Your task to perform on an android device: choose inbox layout in the gmail app Image 0: 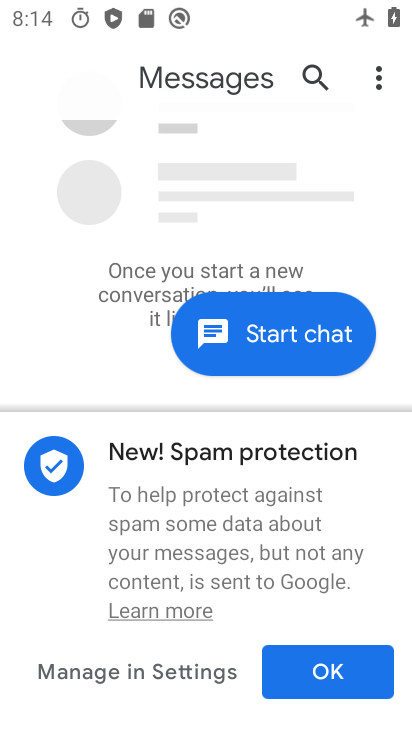
Step 0: press back button
Your task to perform on an android device: choose inbox layout in the gmail app Image 1: 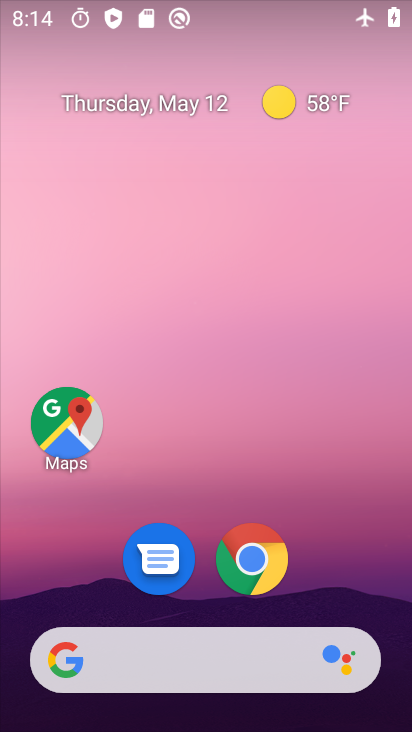
Step 1: drag from (343, 570) to (244, 102)
Your task to perform on an android device: choose inbox layout in the gmail app Image 2: 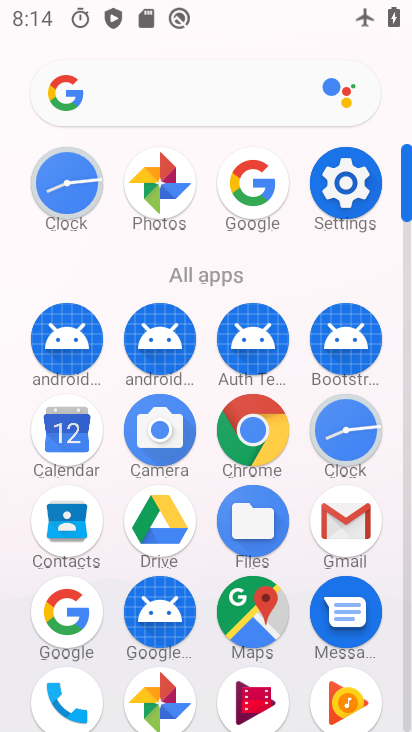
Step 2: click (345, 520)
Your task to perform on an android device: choose inbox layout in the gmail app Image 3: 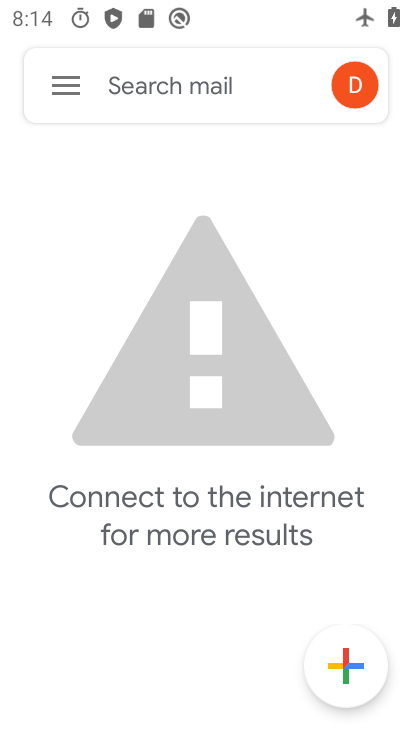
Step 3: click (70, 84)
Your task to perform on an android device: choose inbox layout in the gmail app Image 4: 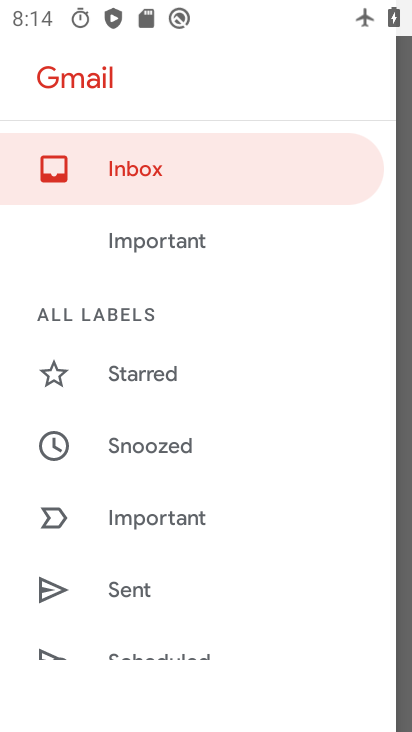
Step 4: drag from (167, 390) to (201, 286)
Your task to perform on an android device: choose inbox layout in the gmail app Image 5: 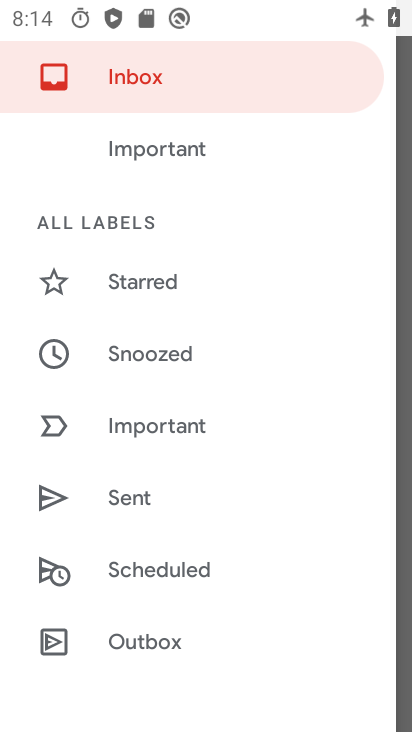
Step 5: drag from (141, 403) to (219, 303)
Your task to perform on an android device: choose inbox layout in the gmail app Image 6: 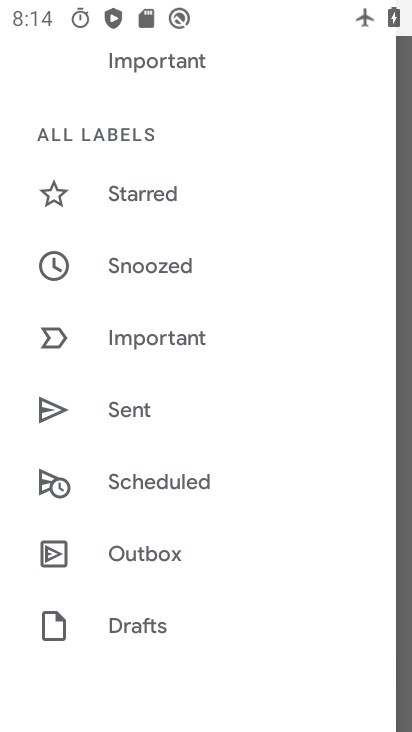
Step 6: drag from (135, 441) to (230, 329)
Your task to perform on an android device: choose inbox layout in the gmail app Image 7: 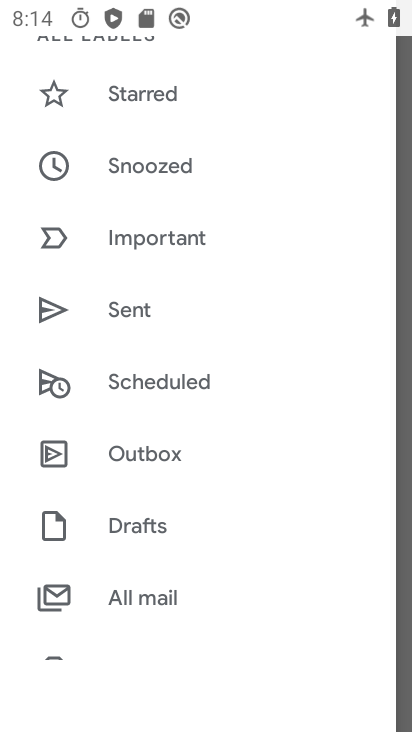
Step 7: drag from (130, 483) to (238, 343)
Your task to perform on an android device: choose inbox layout in the gmail app Image 8: 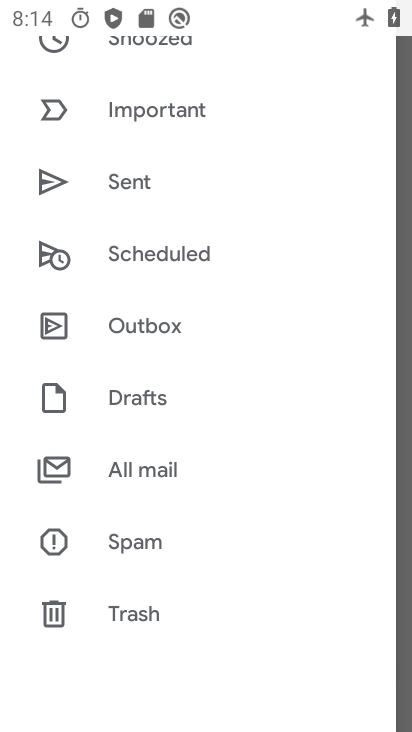
Step 8: drag from (146, 523) to (285, 368)
Your task to perform on an android device: choose inbox layout in the gmail app Image 9: 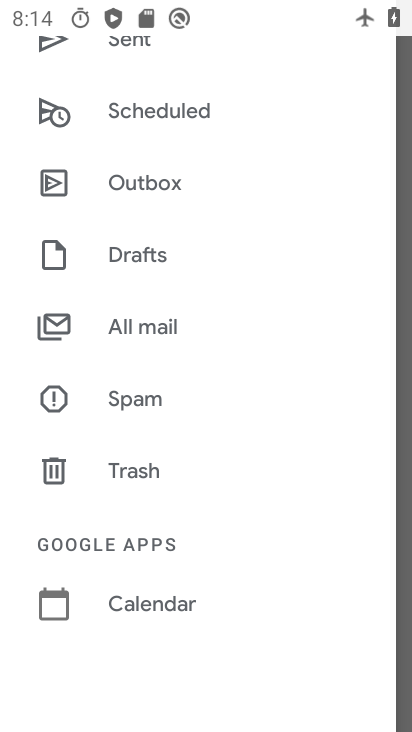
Step 9: drag from (151, 565) to (254, 427)
Your task to perform on an android device: choose inbox layout in the gmail app Image 10: 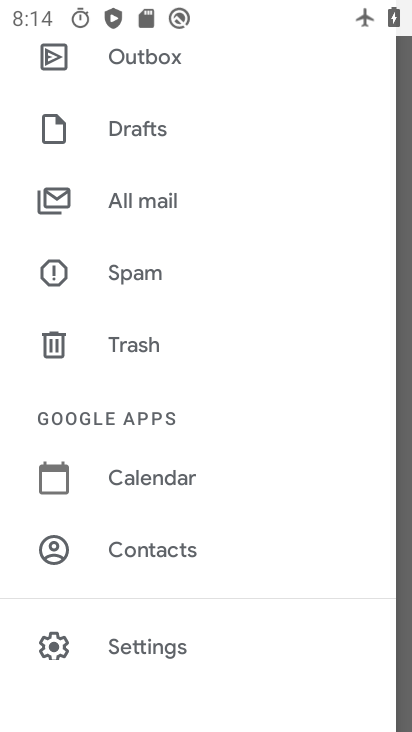
Step 10: drag from (116, 617) to (226, 448)
Your task to perform on an android device: choose inbox layout in the gmail app Image 11: 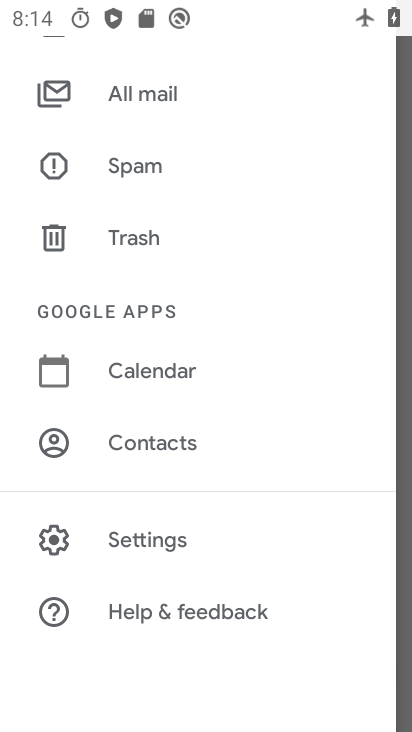
Step 11: click (142, 541)
Your task to perform on an android device: choose inbox layout in the gmail app Image 12: 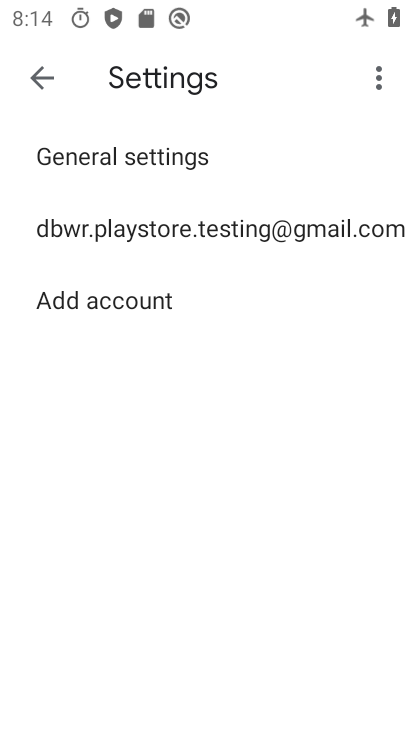
Step 12: click (119, 231)
Your task to perform on an android device: choose inbox layout in the gmail app Image 13: 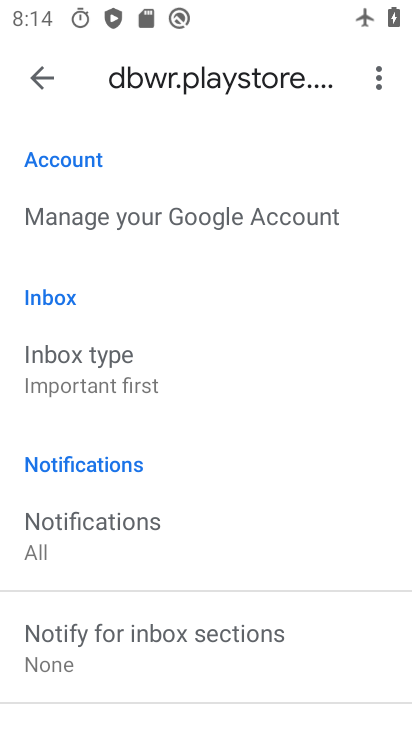
Step 13: click (94, 353)
Your task to perform on an android device: choose inbox layout in the gmail app Image 14: 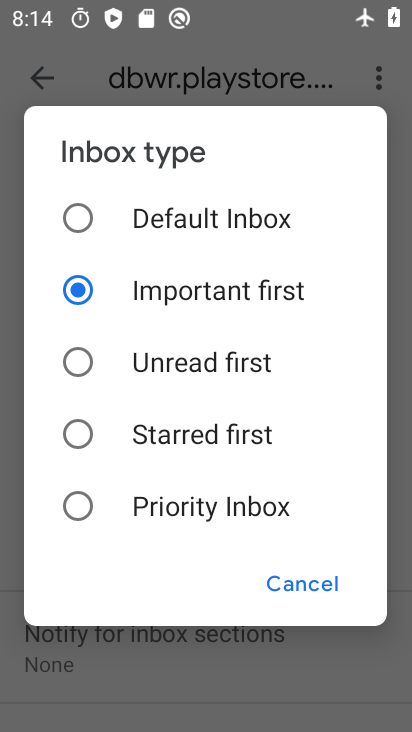
Step 14: click (87, 279)
Your task to perform on an android device: choose inbox layout in the gmail app Image 15: 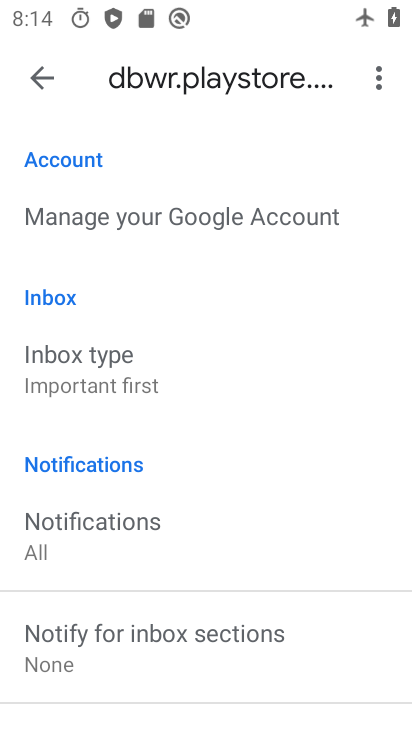
Step 15: task complete